Your task to perform on an android device: choose inbox layout in the gmail app Image 0: 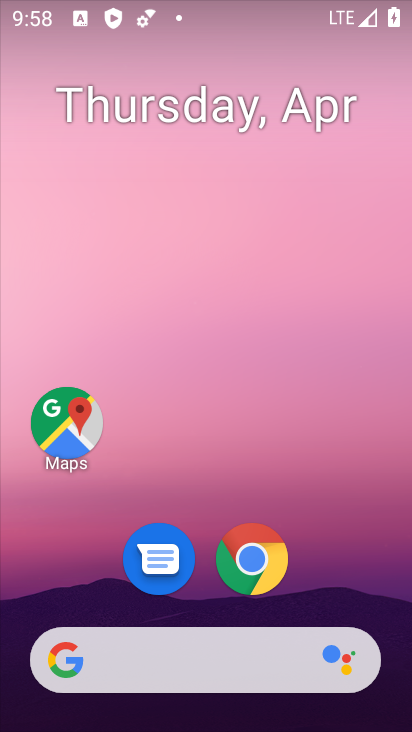
Step 0: drag from (249, 721) to (242, 162)
Your task to perform on an android device: choose inbox layout in the gmail app Image 1: 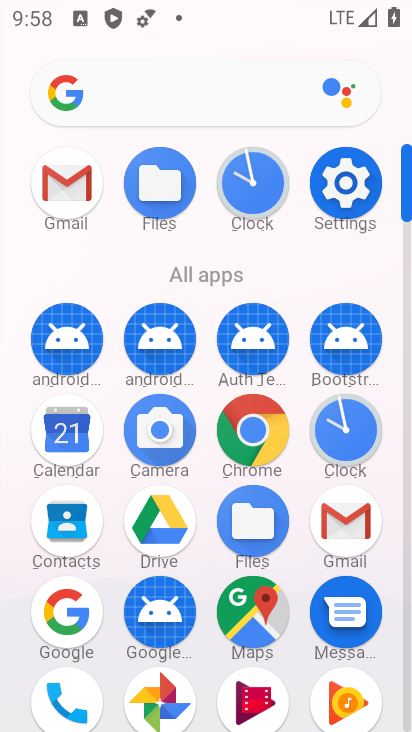
Step 1: click (70, 195)
Your task to perform on an android device: choose inbox layout in the gmail app Image 2: 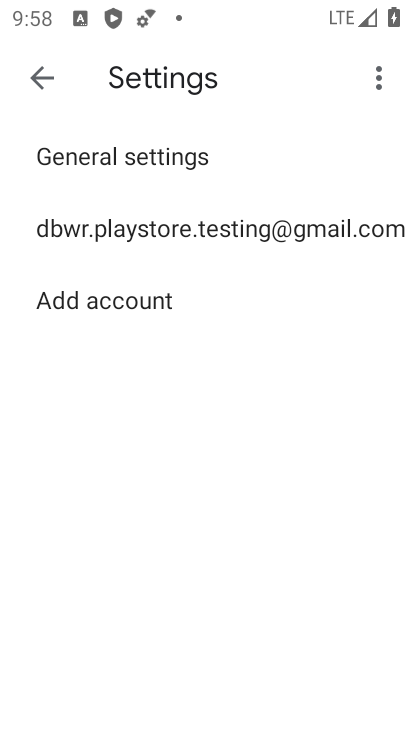
Step 2: click (127, 222)
Your task to perform on an android device: choose inbox layout in the gmail app Image 3: 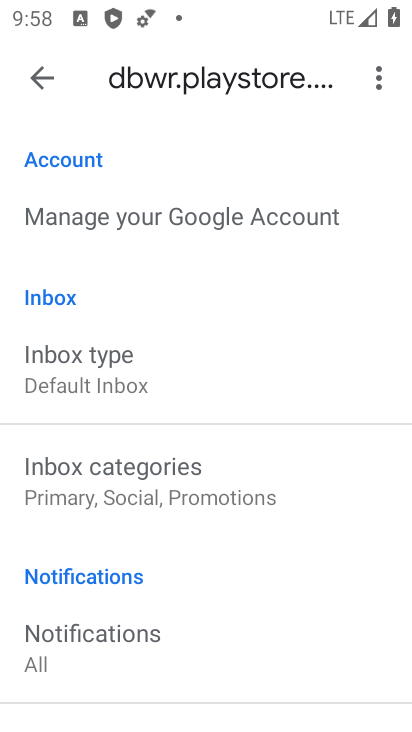
Step 3: click (84, 389)
Your task to perform on an android device: choose inbox layout in the gmail app Image 4: 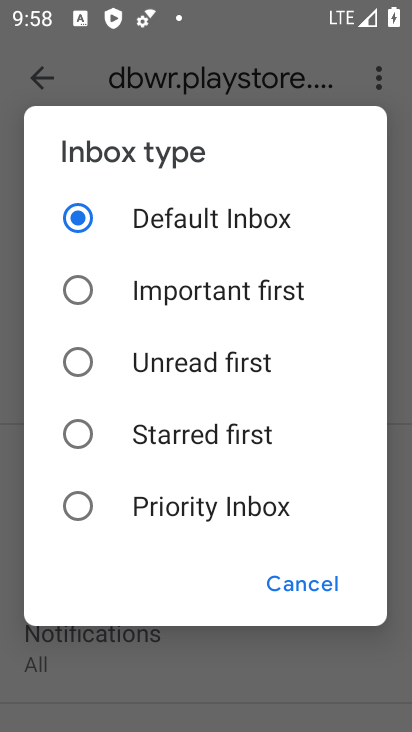
Step 4: click (189, 507)
Your task to perform on an android device: choose inbox layout in the gmail app Image 5: 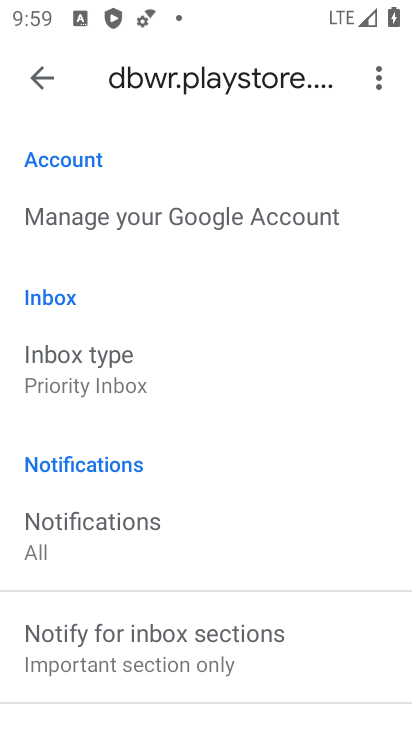
Step 5: task complete